Your task to perform on an android device: install app "File Manager" Image 0: 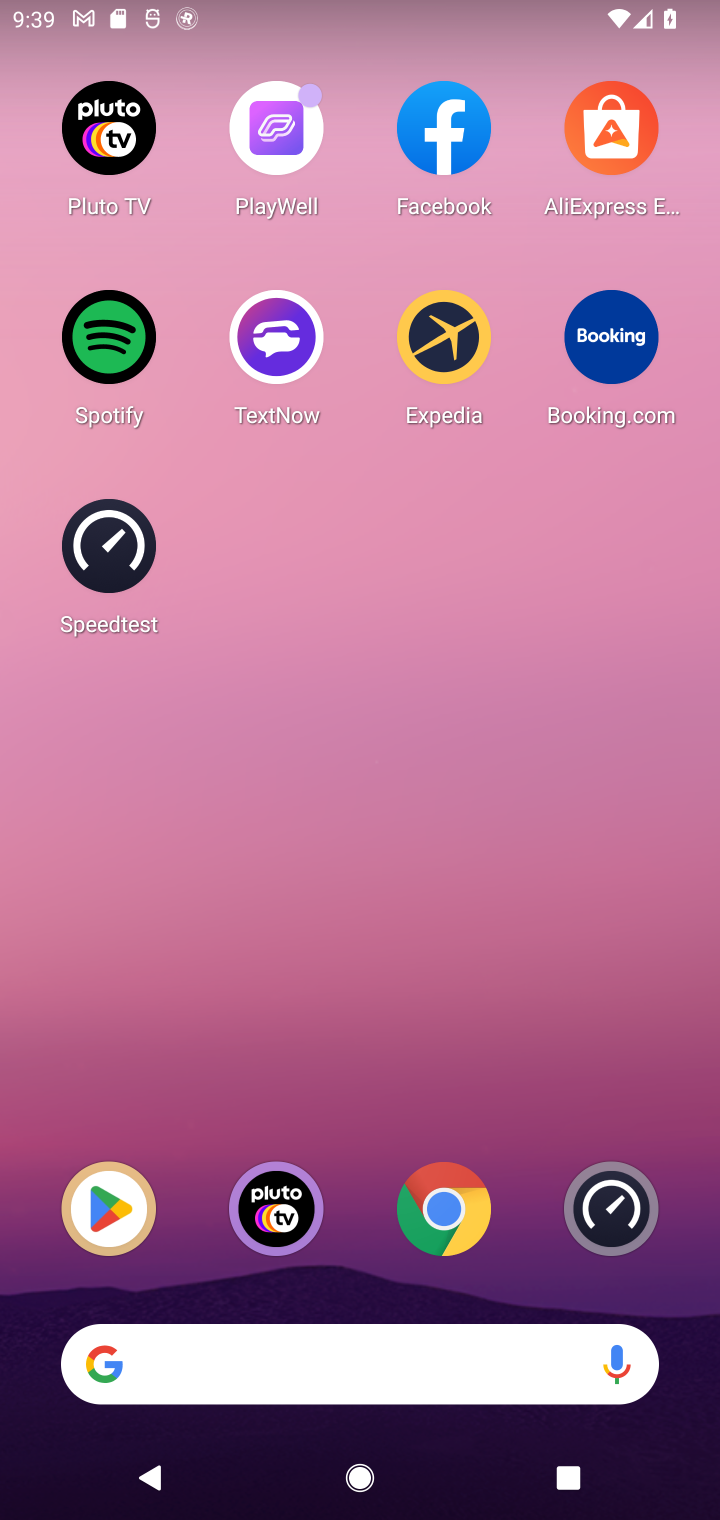
Step 0: press home button
Your task to perform on an android device: install app "File Manager" Image 1: 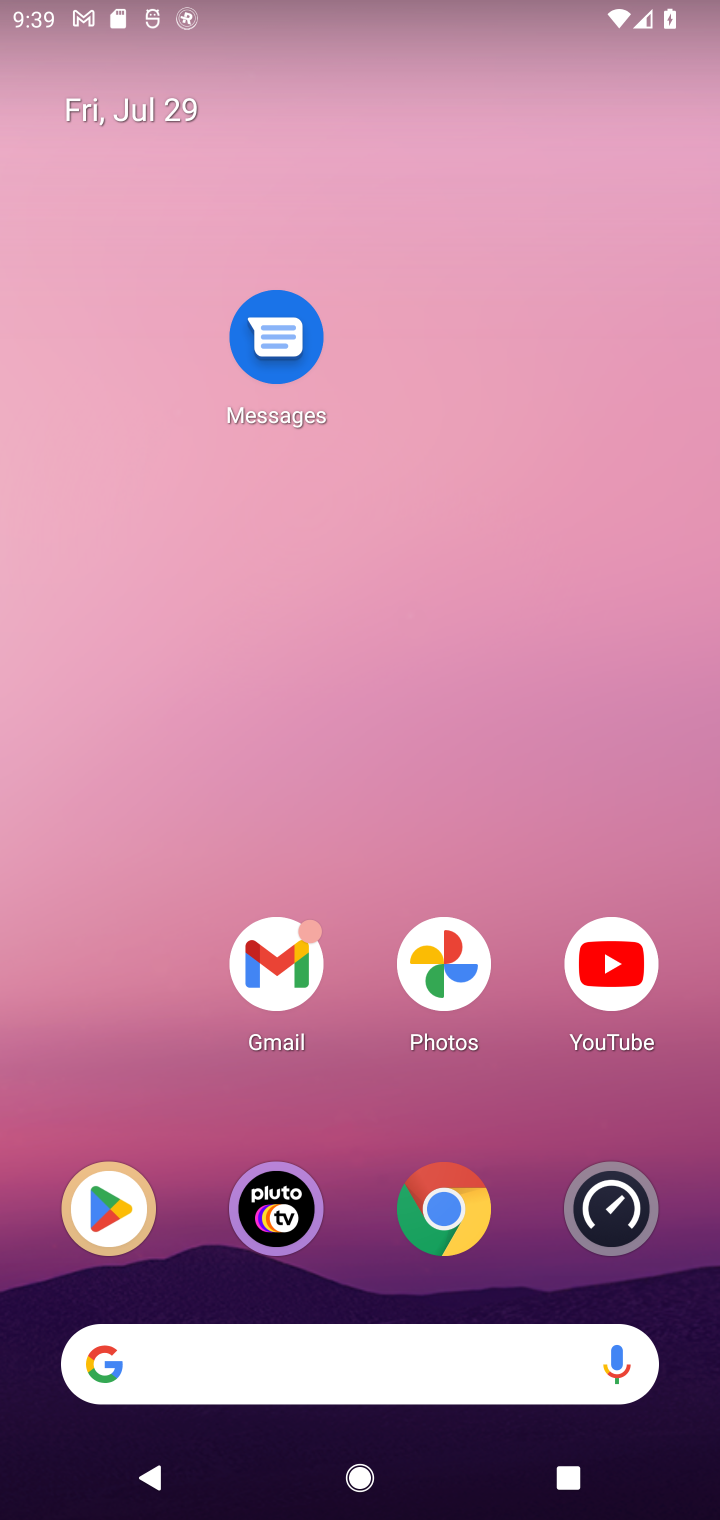
Step 1: drag from (290, 1353) to (380, 156)
Your task to perform on an android device: install app "File Manager" Image 2: 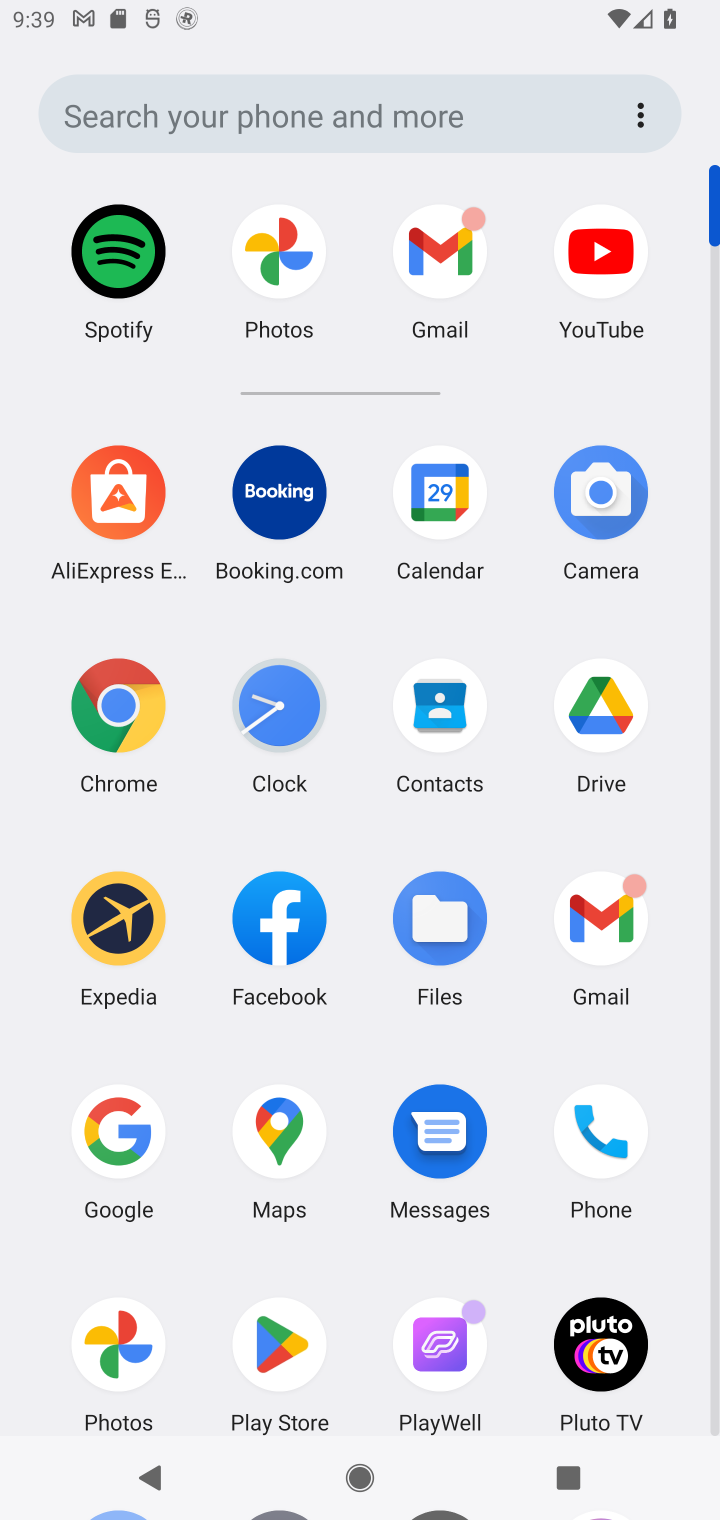
Step 2: click (285, 1346)
Your task to perform on an android device: install app "File Manager" Image 3: 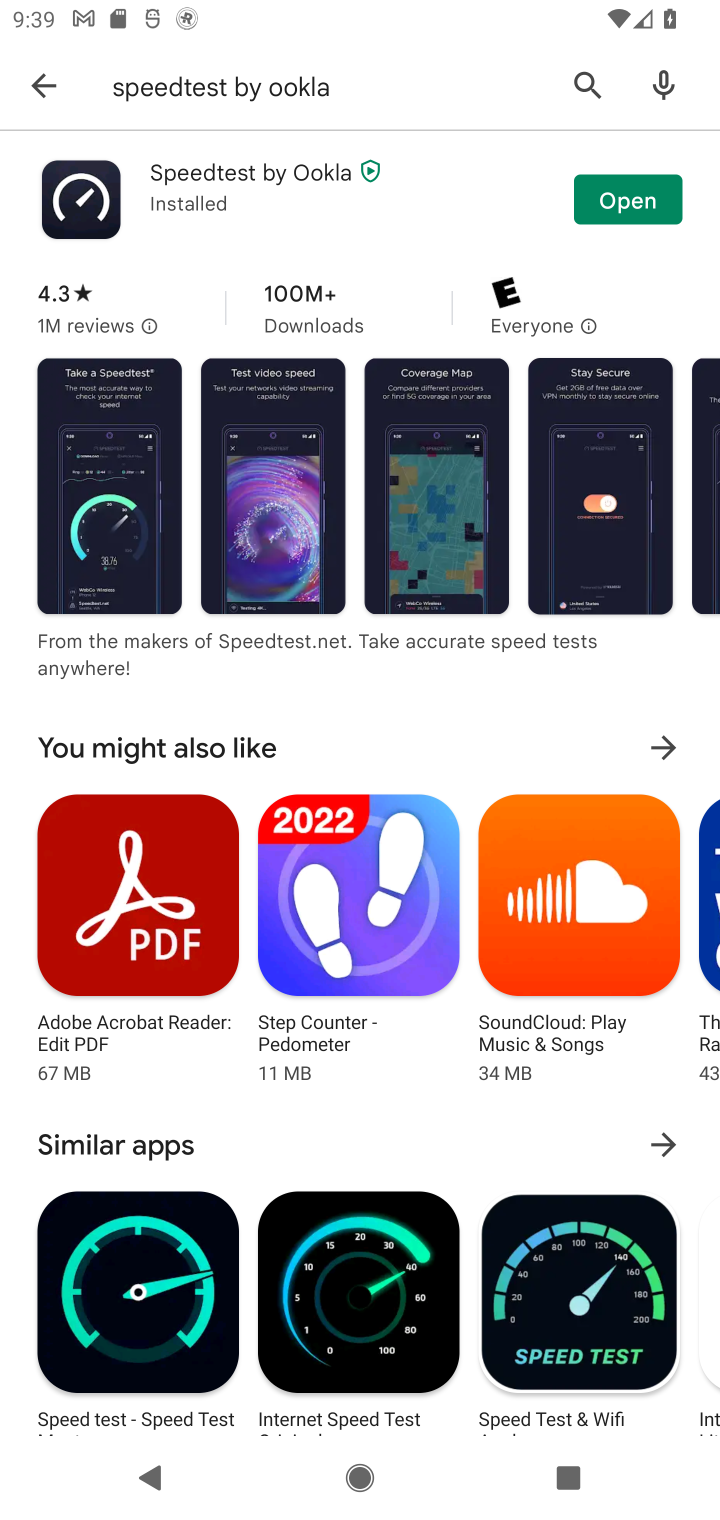
Step 3: click (480, 75)
Your task to perform on an android device: install app "File Manager" Image 4: 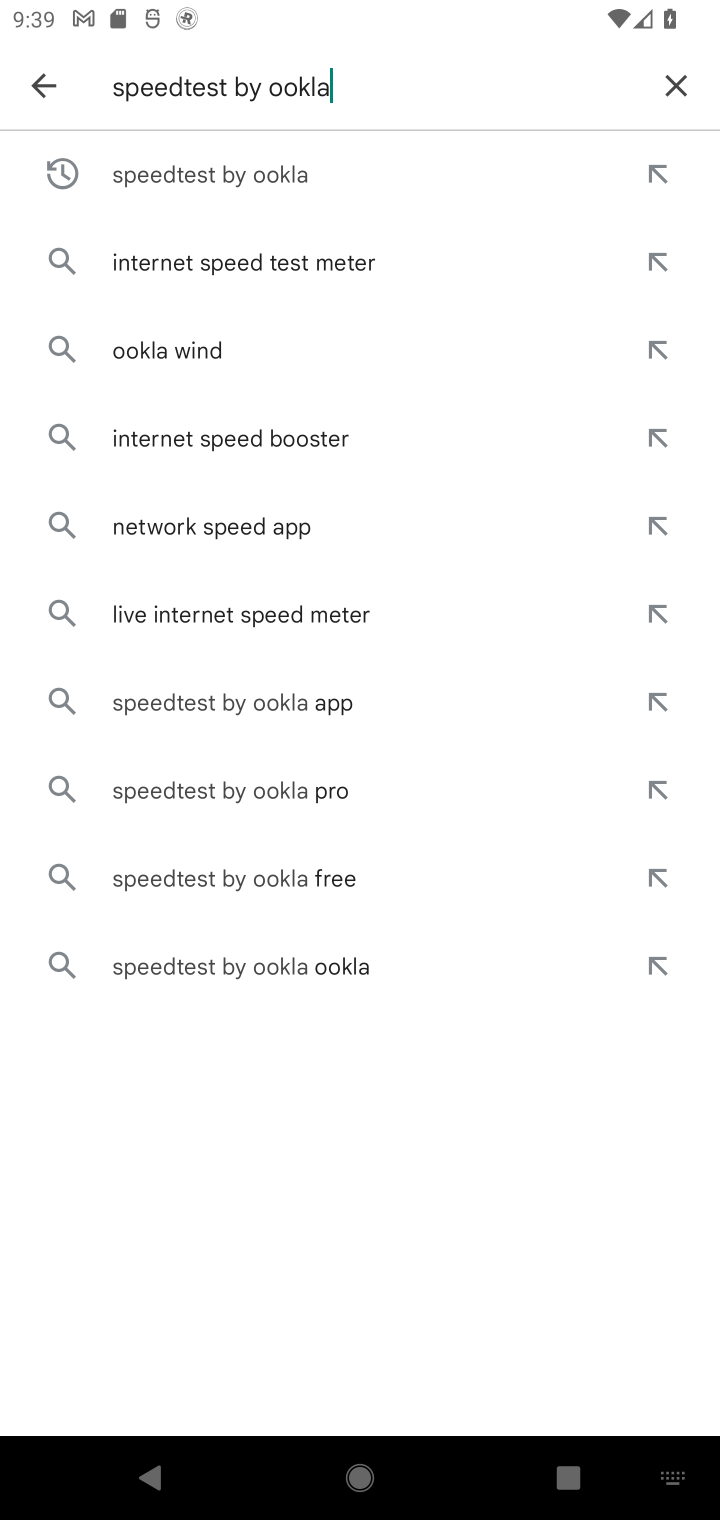
Step 4: click (675, 81)
Your task to perform on an android device: install app "File Manager" Image 5: 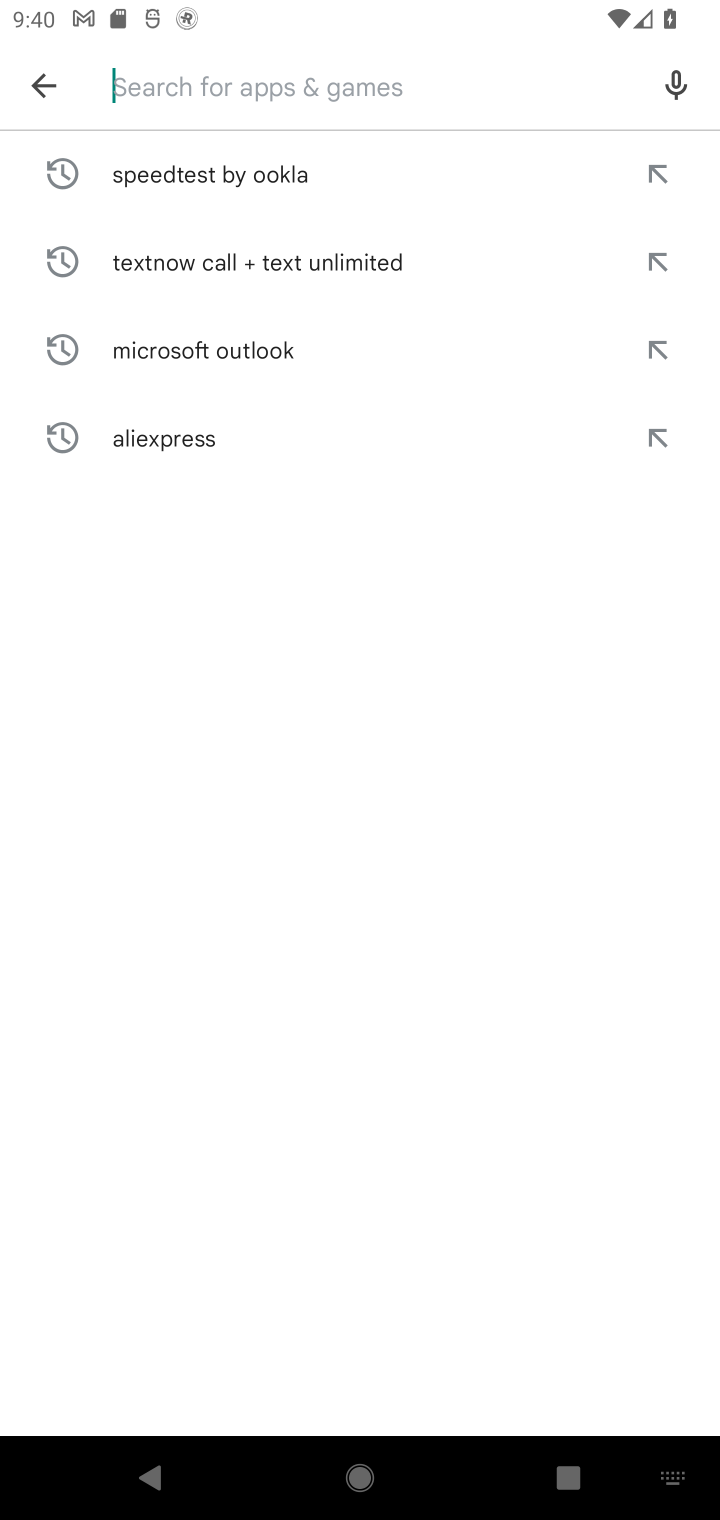
Step 5: type "File Manager"
Your task to perform on an android device: install app "File Manager" Image 6: 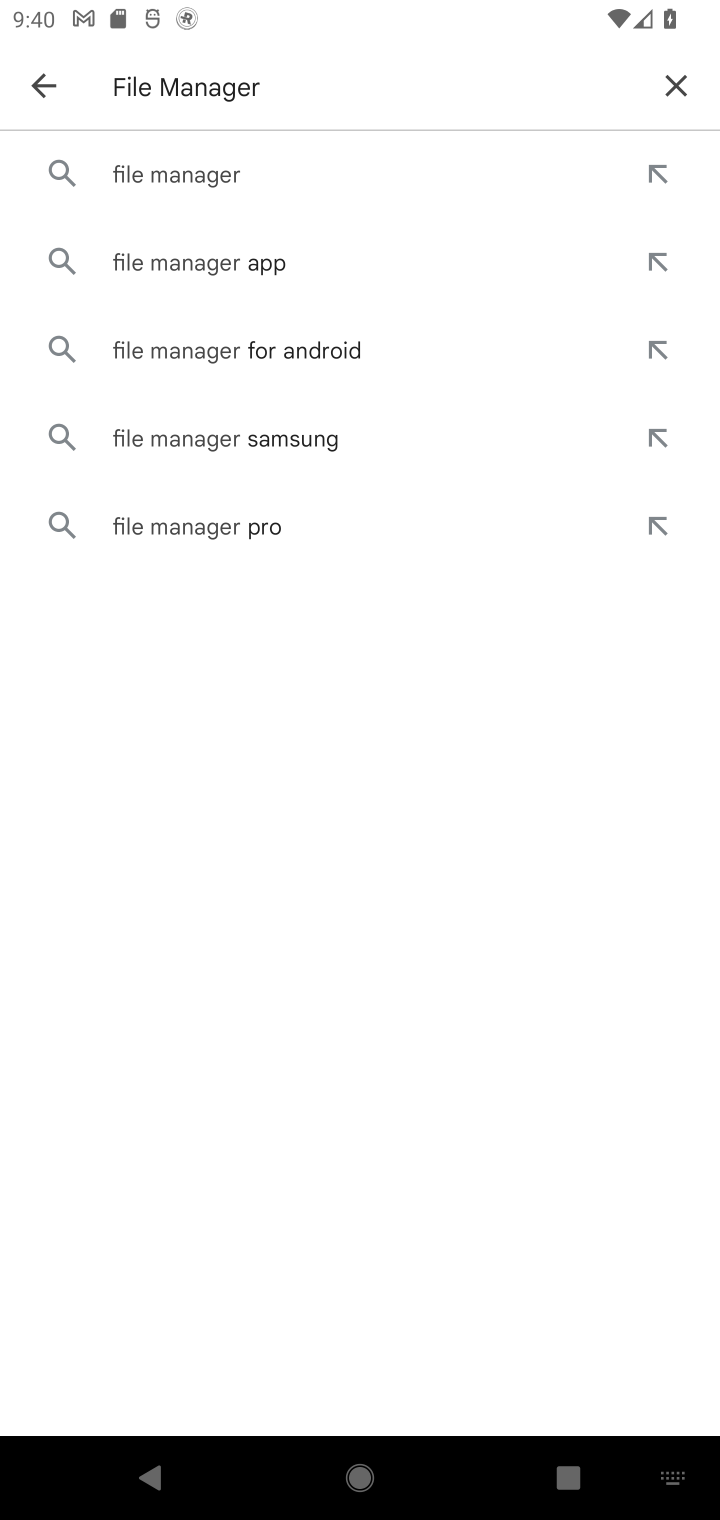
Step 6: click (214, 163)
Your task to perform on an android device: install app "File Manager" Image 7: 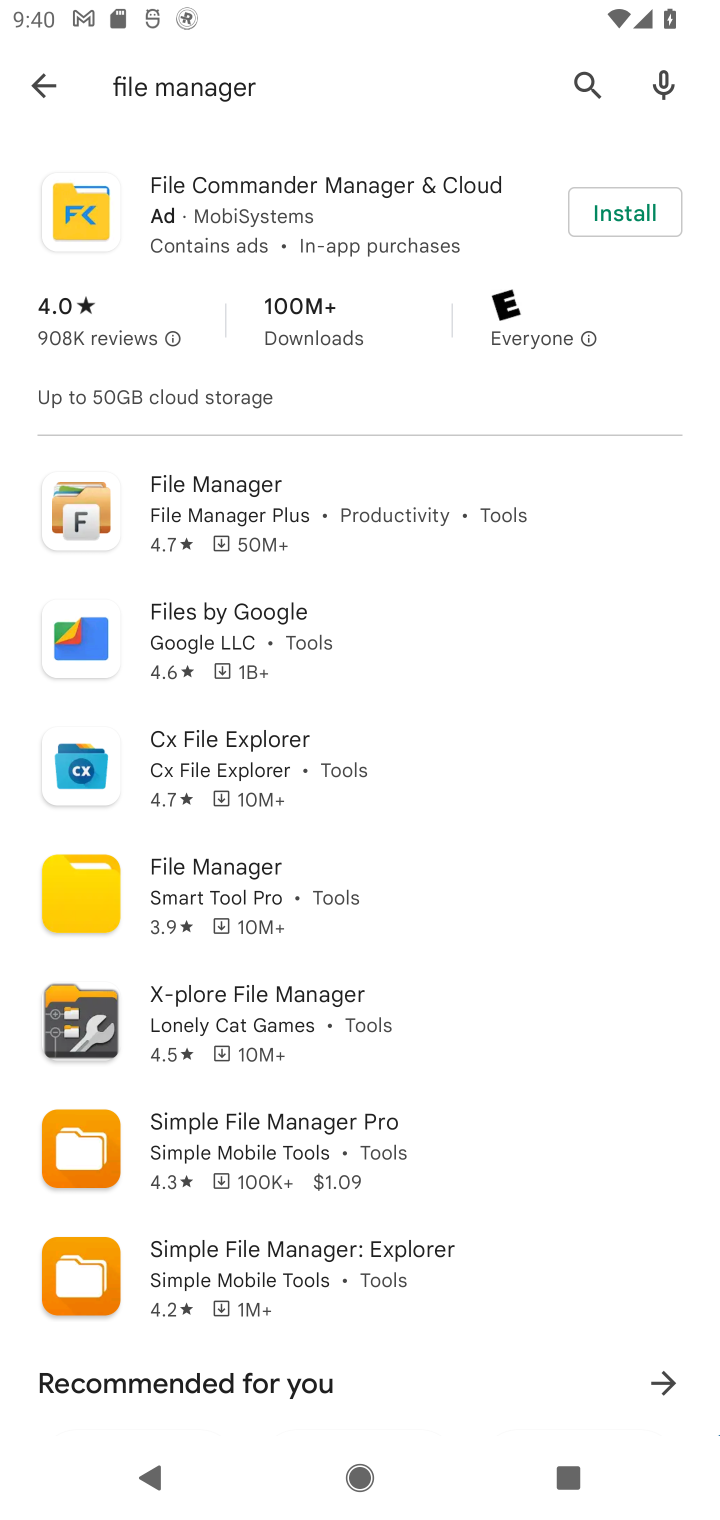
Step 7: click (187, 616)
Your task to perform on an android device: install app "File Manager" Image 8: 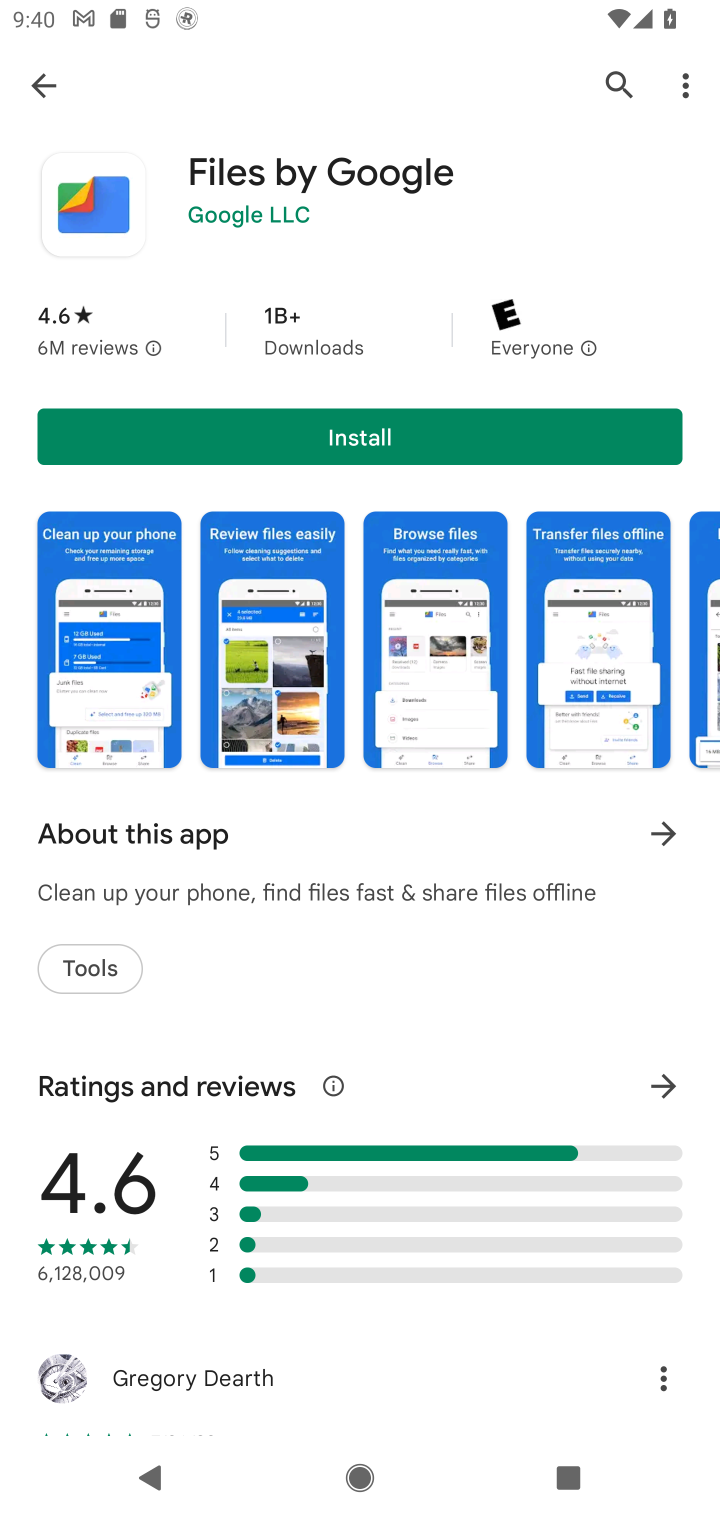
Step 8: click (432, 441)
Your task to perform on an android device: install app "File Manager" Image 9: 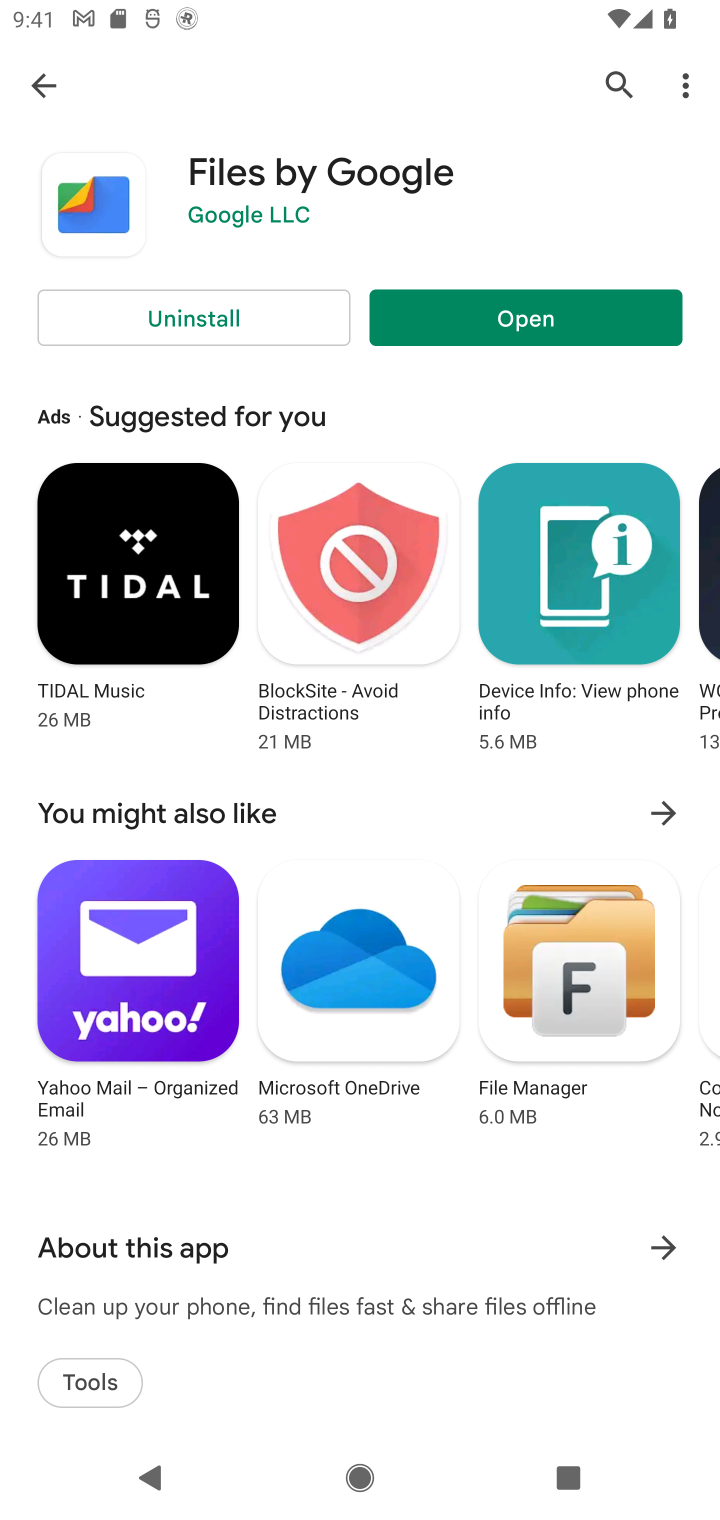
Step 9: task complete